Your task to perform on an android device: toggle data saver in the chrome app Image 0: 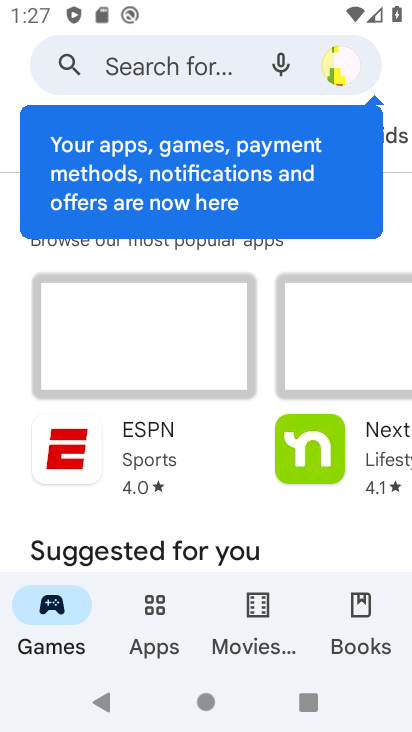
Step 0: press home button
Your task to perform on an android device: toggle data saver in the chrome app Image 1: 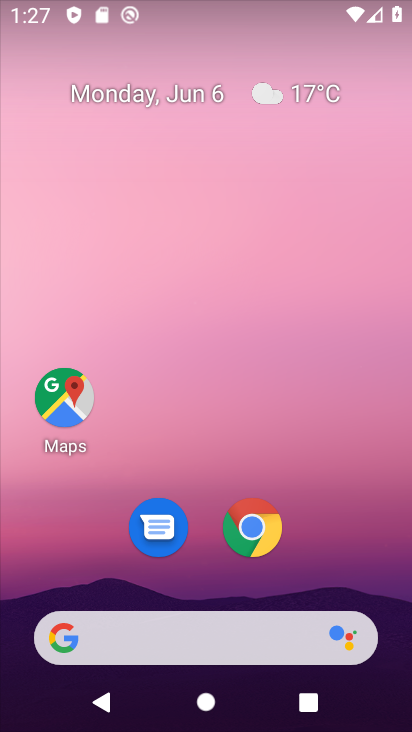
Step 1: click (262, 564)
Your task to perform on an android device: toggle data saver in the chrome app Image 2: 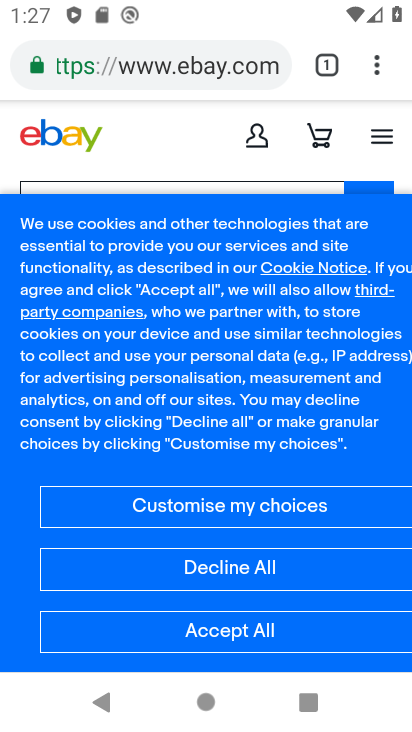
Step 2: click (378, 70)
Your task to perform on an android device: toggle data saver in the chrome app Image 3: 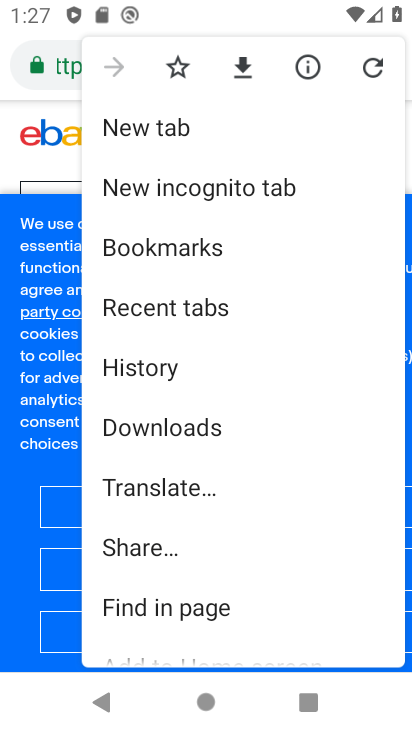
Step 3: drag from (183, 603) to (168, 218)
Your task to perform on an android device: toggle data saver in the chrome app Image 4: 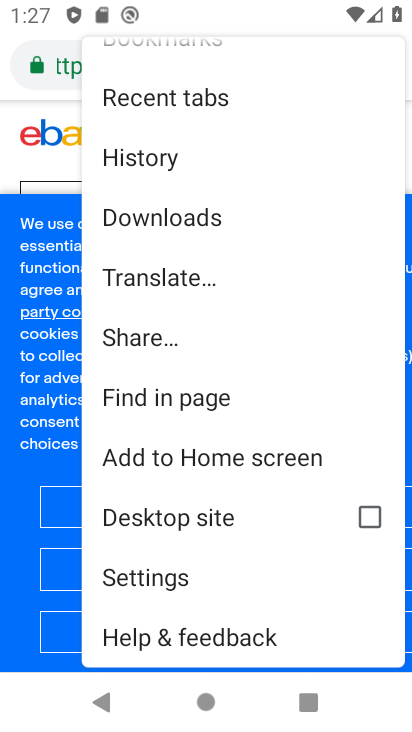
Step 4: click (156, 578)
Your task to perform on an android device: toggle data saver in the chrome app Image 5: 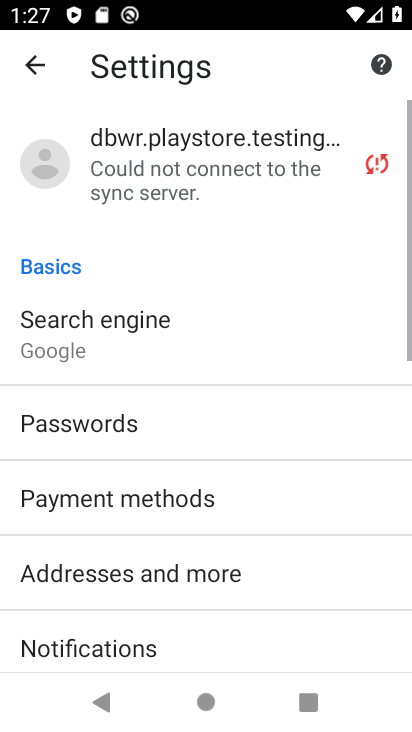
Step 5: drag from (180, 631) to (181, 173)
Your task to perform on an android device: toggle data saver in the chrome app Image 6: 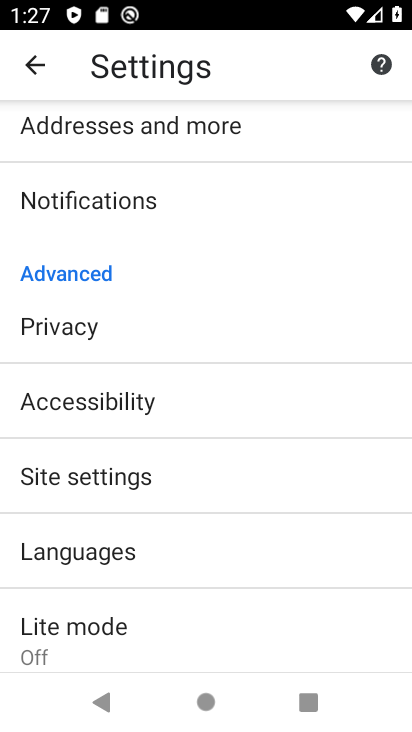
Step 6: click (100, 629)
Your task to perform on an android device: toggle data saver in the chrome app Image 7: 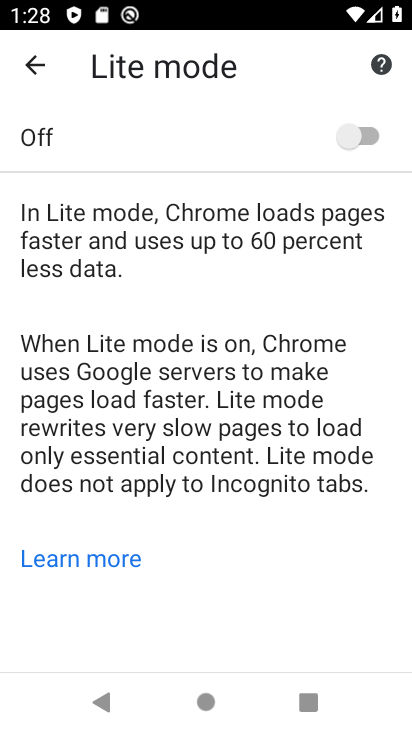
Step 7: click (368, 140)
Your task to perform on an android device: toggle data saver in the chrome app Image 8: 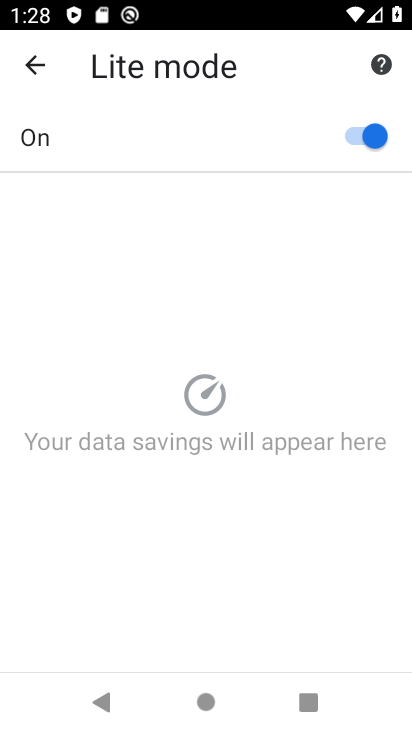
Step 8: task complete